Your task to perform on an android device: uninstall "Clock" Image 0: 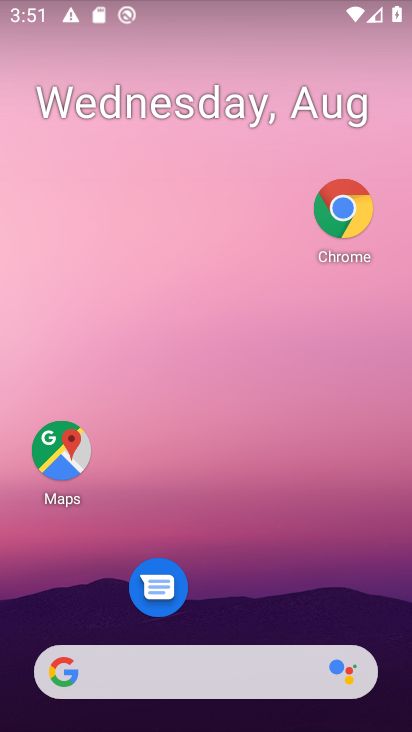
Step 0: press home button
Your task to perform on an android device: uninstall "Clock" Image 1: 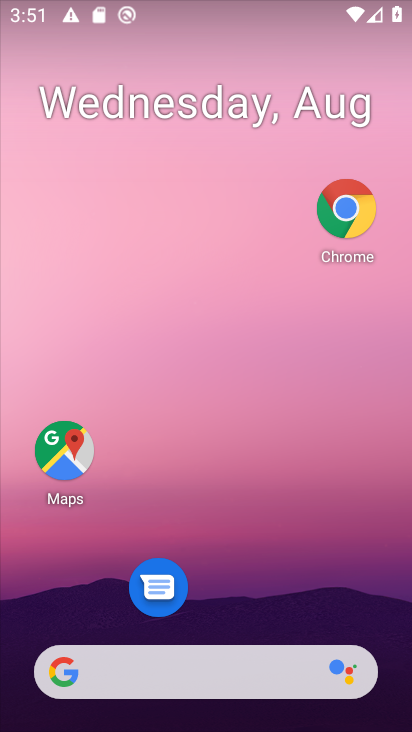
Step 1: drag from (234, 600) to (310, 29)
Your task to perform on an android device: uninstall "Clock" Image 2: 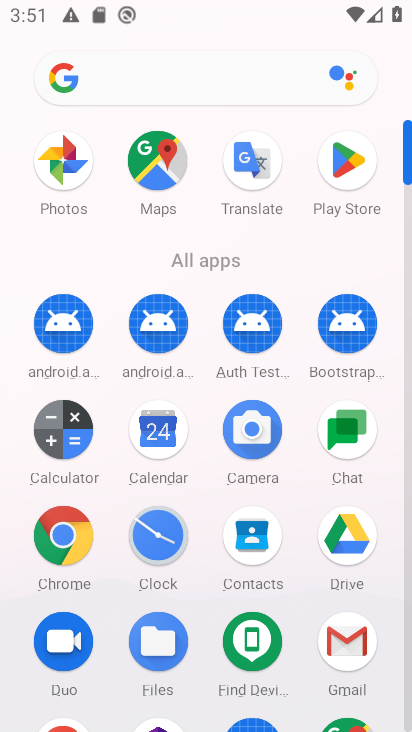
Step 2: click (343, 153)
Your task to perform on an android device: uninstall "Clock" Image 3: 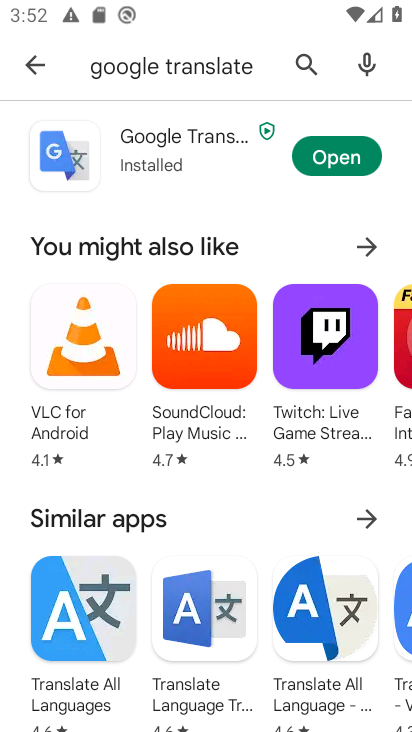
Step 3: click (305, 60)
Your task to perform on an android device: uninstall "Clock" Image 4: 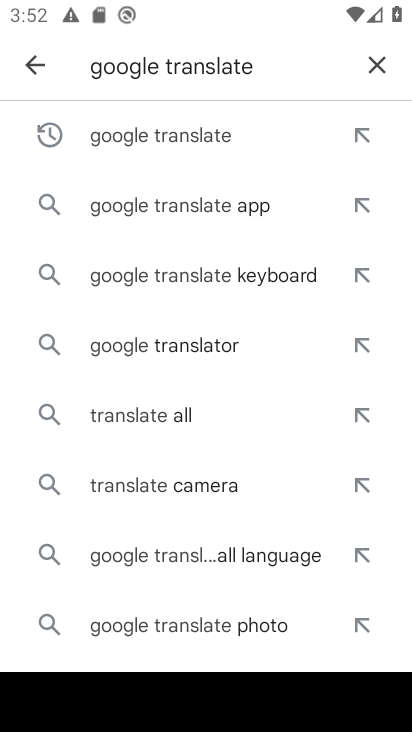
Step 4: click (376, 70)
Your task to perform on an android device: uninstall "Clock" Image 5: 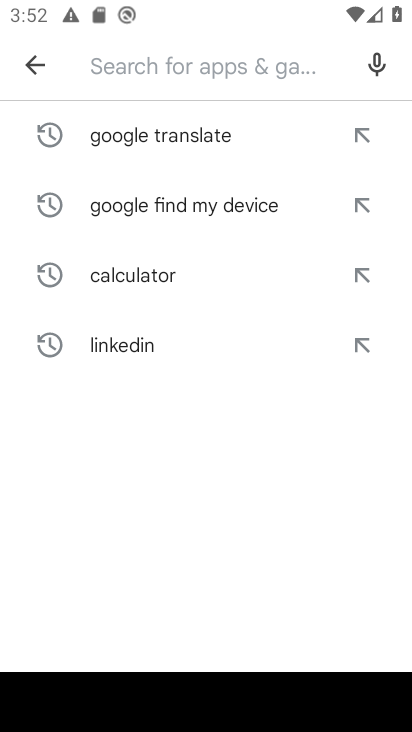
Step 5: type "Clock"
Your task to perform on an android device: uninstall "Clock" Image 6: 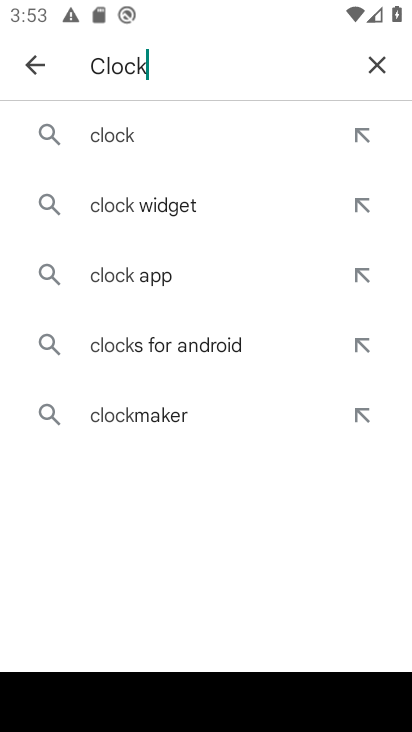
Step 6: click (135, 140)
Your task to perform on an android device: uninstall "Clock" Image 7: 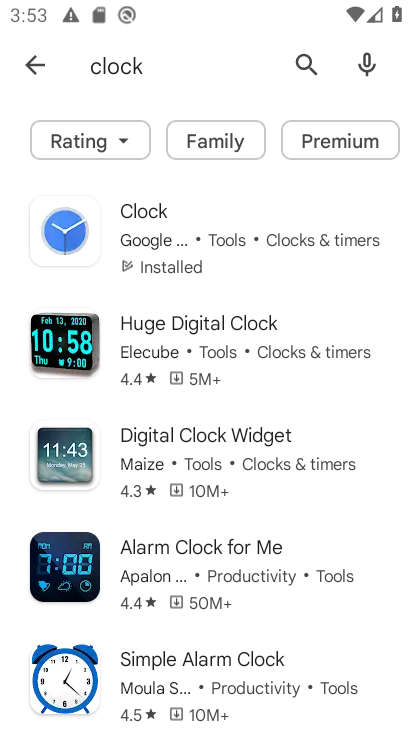
Step 7: click (150, 228)
Your task to perform on an android device: uninstall "Clock" Image 8: 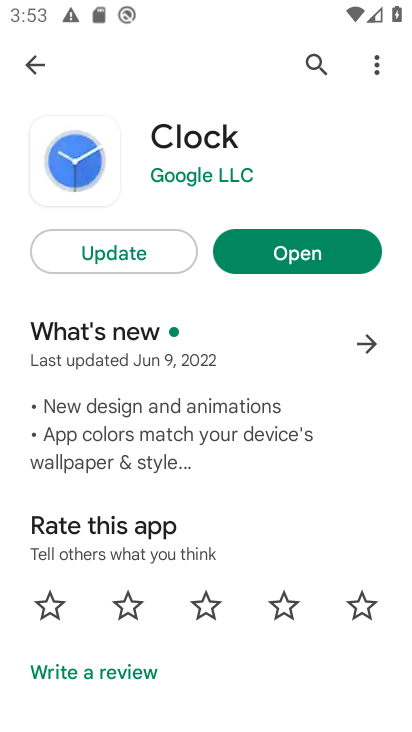
Step 8: task complete